Your task to perform on an android device: turn off sleep mode Image 0: 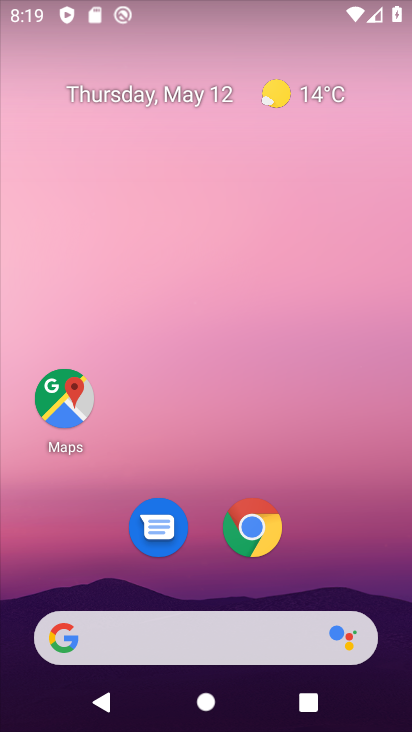
Step 0: drag from (350, 571) to (327, 69)
Your task to perform on an android device: turn off sleep mode Image 1: 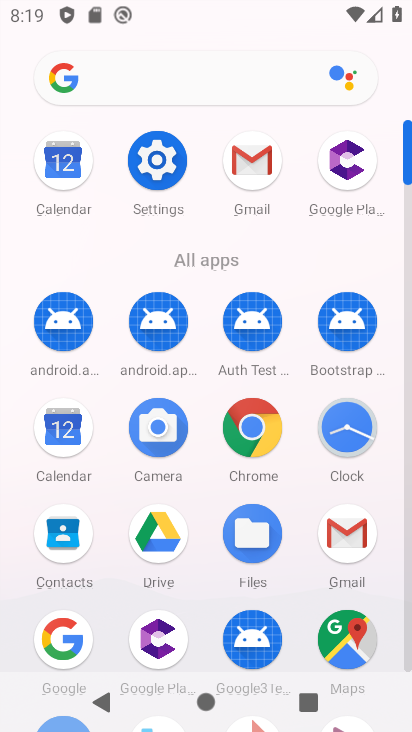
Step 1: click (178, 176)
Your task to perform on an android device: turn off sleep mode Image 2: 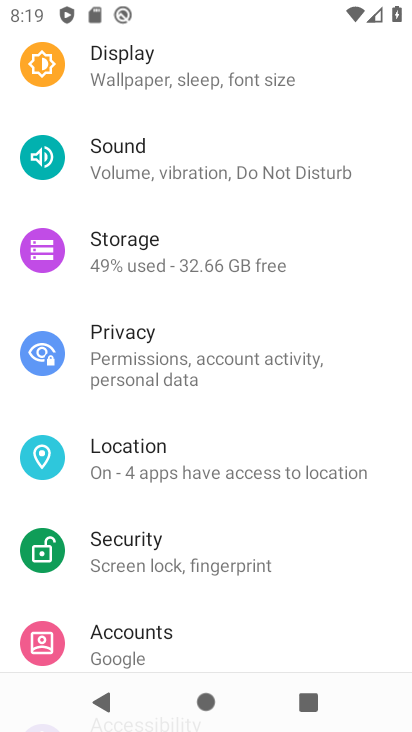
Step 2: click (233, 89)
Your task to perform on an android device: turn off sleep mode Image 3: 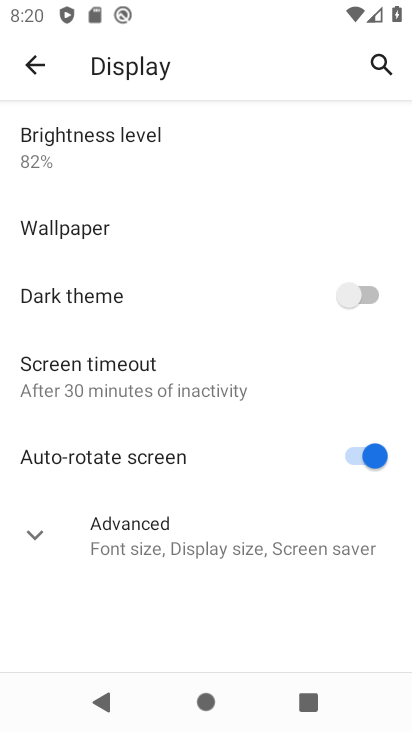
Step 3: click (214, 370)
Your task to perform on an android device: turn off sleep mode Image 4: 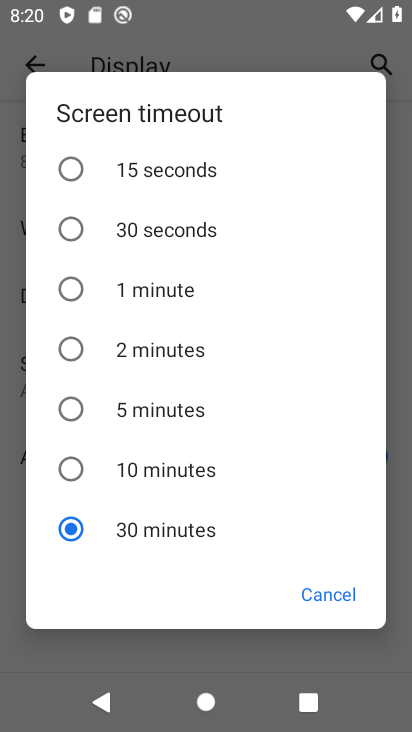
Step 4: click (182, 174)
Your task to perform on an android device: turn off sleep mode Image 5: 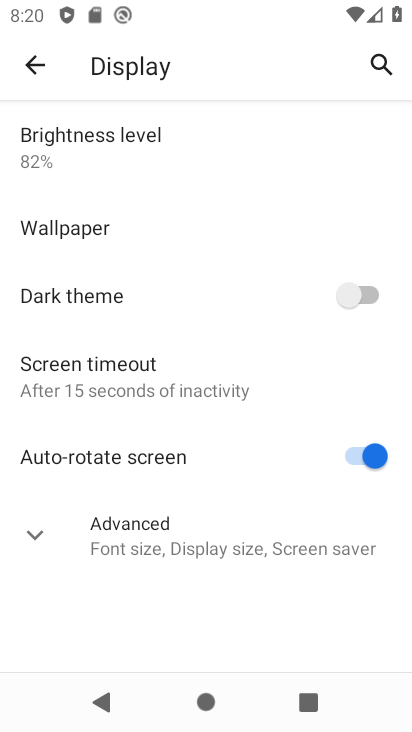
Step 5: task complete